Your task to perform on an android device: turn off wifi Image 0: 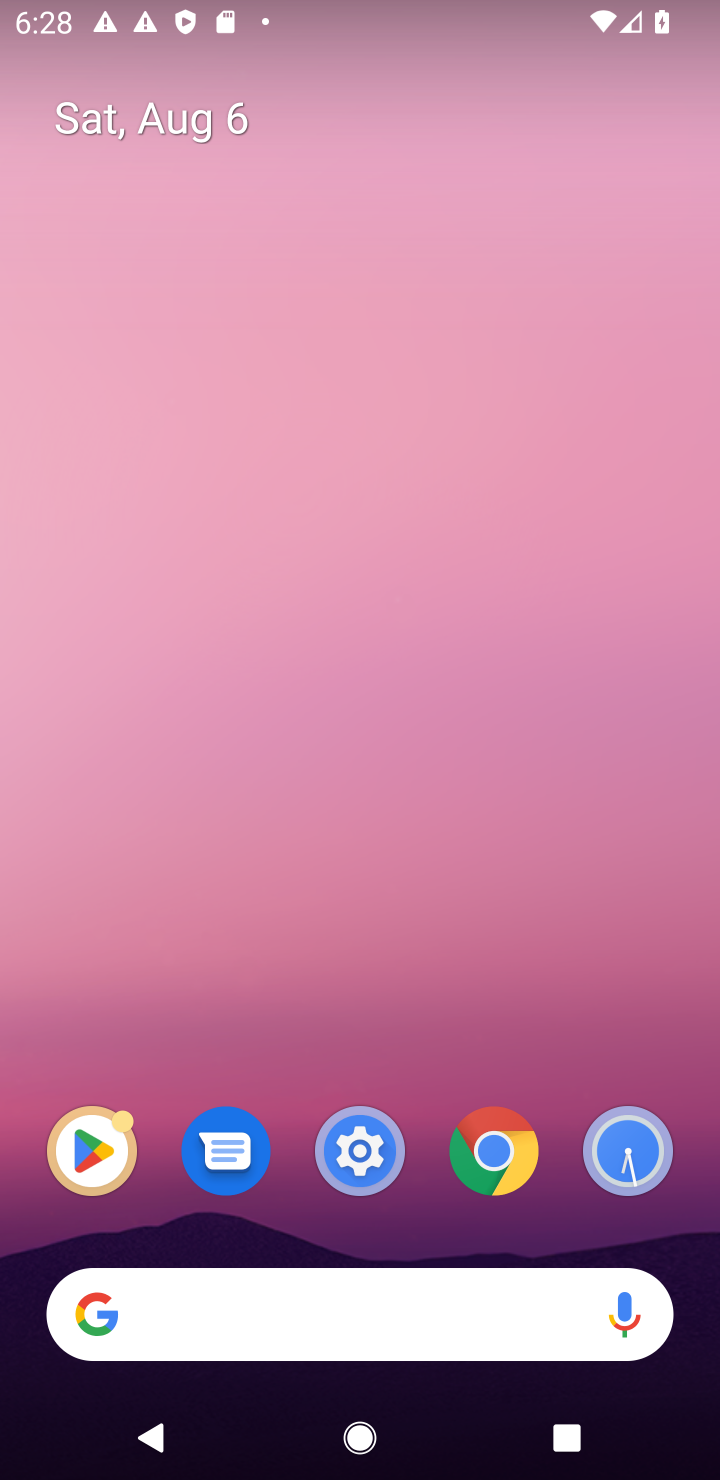
Step 0: drag from (596, 21) to (620, 539)
Your task to perform on an android device: turn off wifi Image 1: 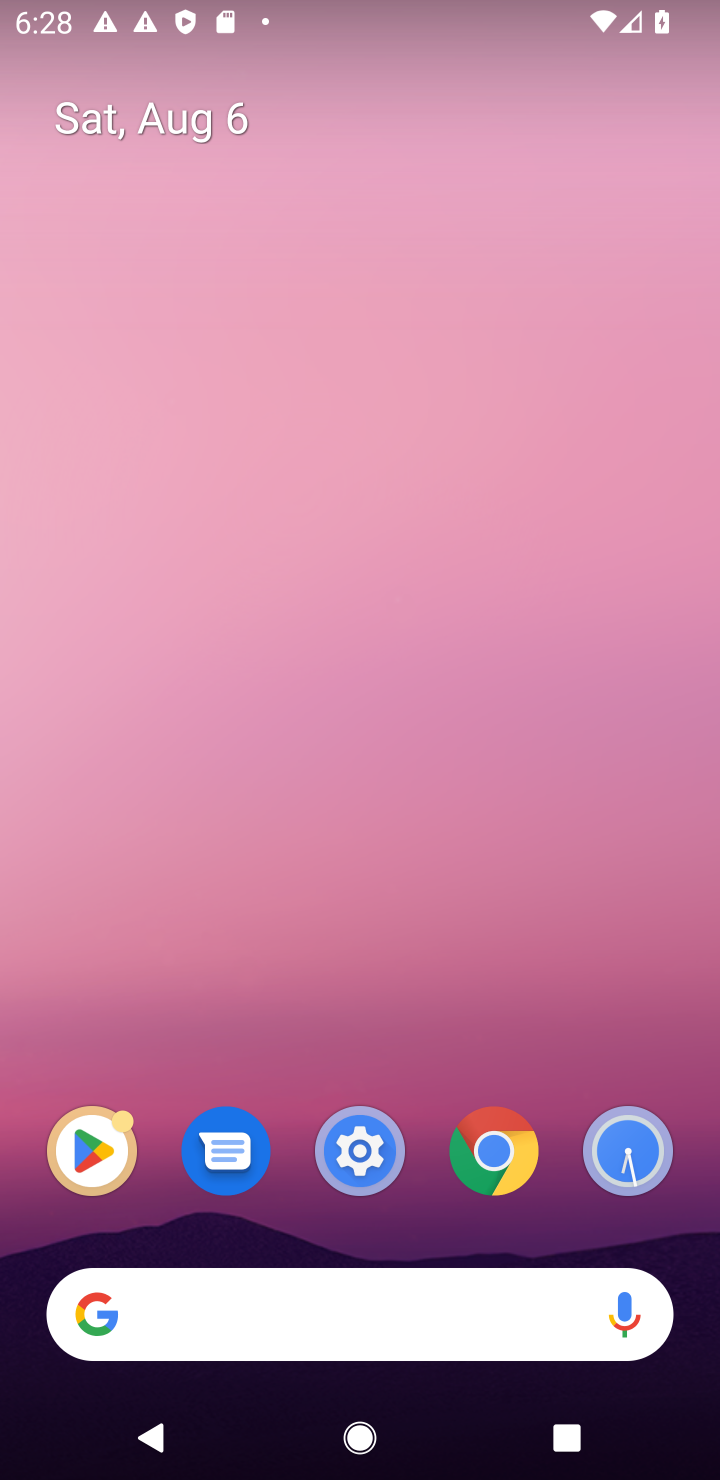
Step 1: drag from (386, 27) to (542, 1092)
Your task to perform on an android device: turn off wifi Image 2: 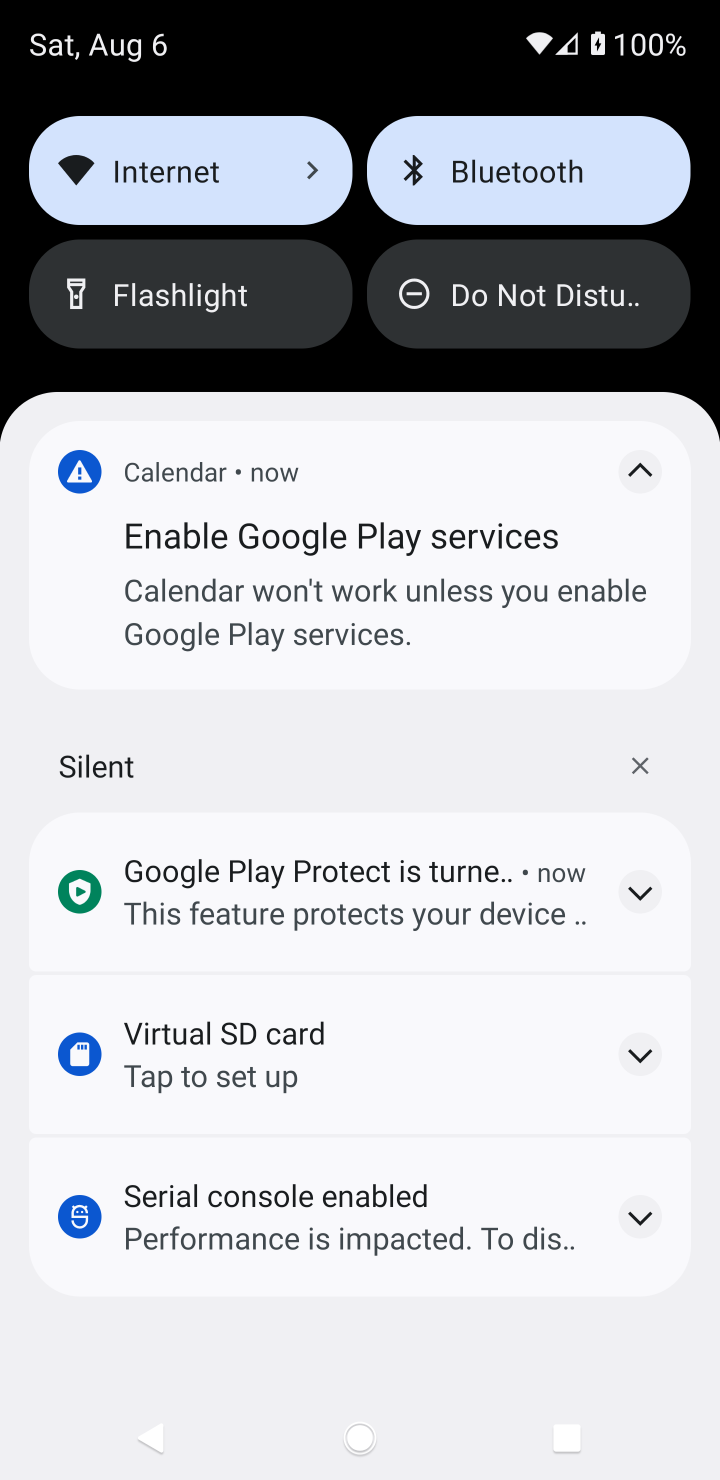
Step 2: click (219, 158)
Your task to perform on an android device: turn off wifi Image 3: 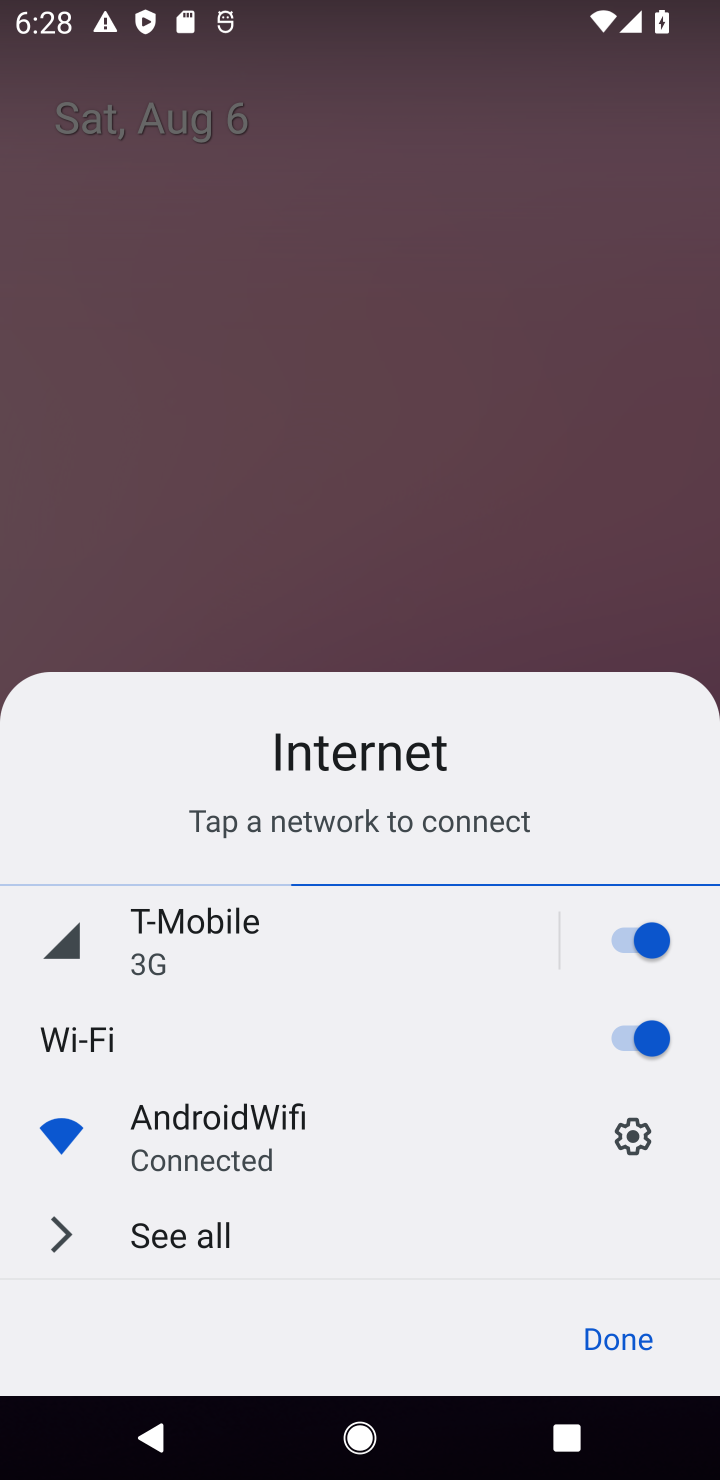
Step 3: click (607, 1037)
Your task to perform on an android device: turn off wifi Image 4: 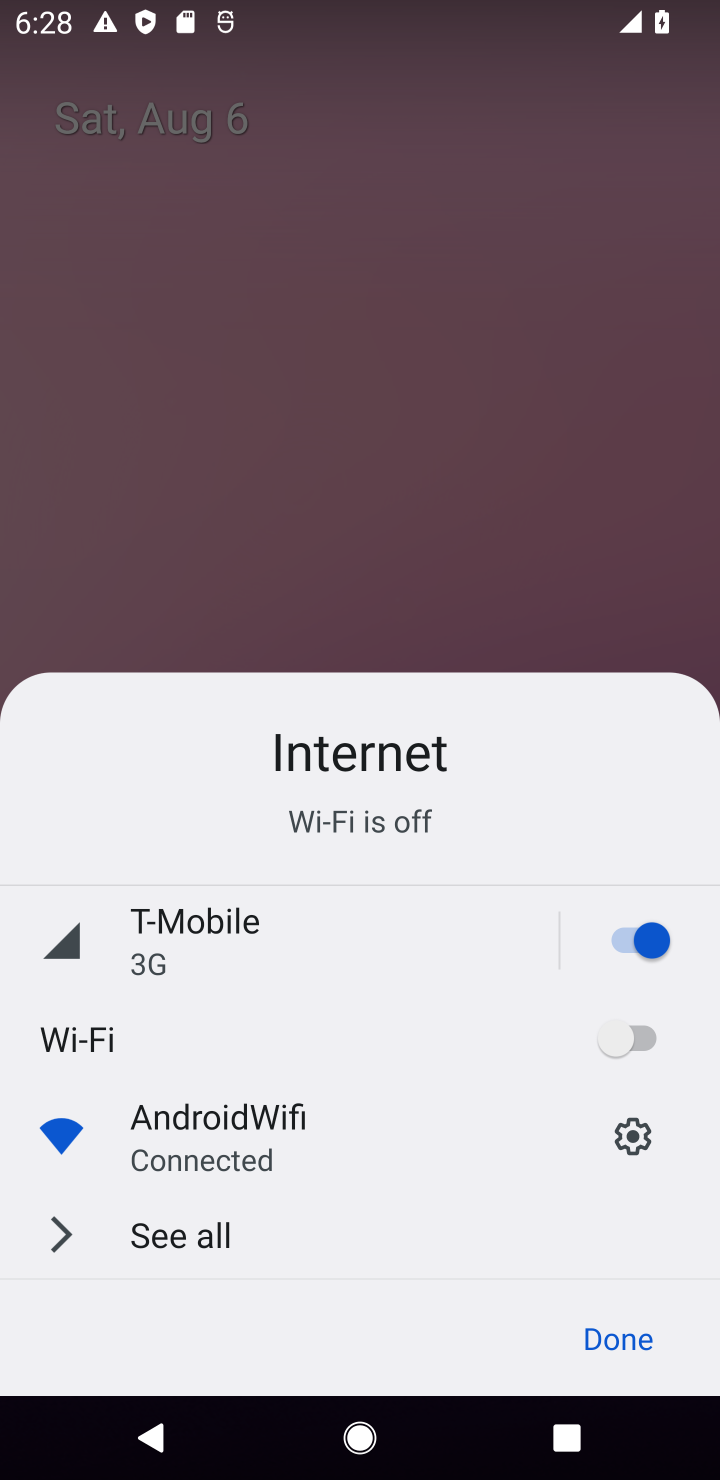
Step 4: task complete